Your task to perform on an android device: open wifi settings Image 0: 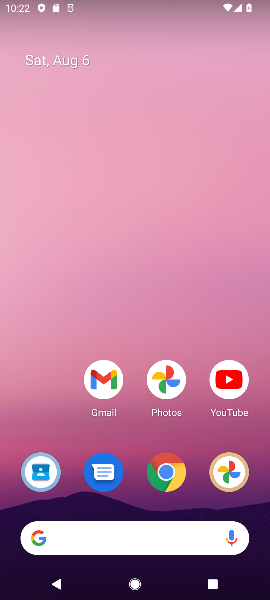
Step 0: drag from (114, 532) to (108, 265)
Your task to perform on an android device: open wifi settings Image 1: 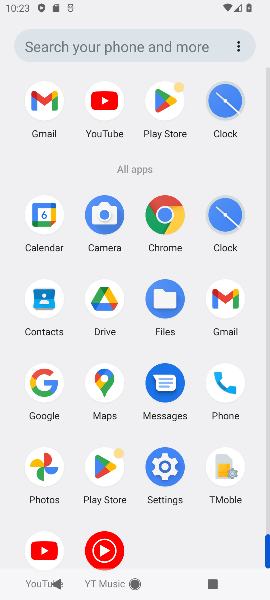
Step 1: click (174, 472)
Your task to perform on an android device: open wifi settings Image 2: 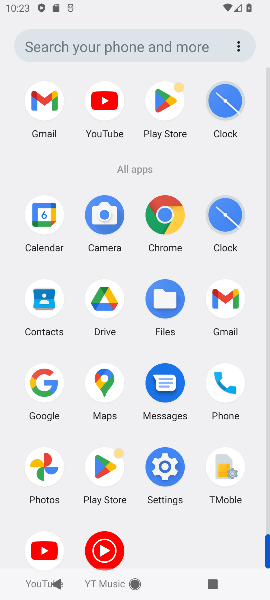
Step 2: click (168, 476)
Your task to perform on an android device: open wifi settings Image 3: 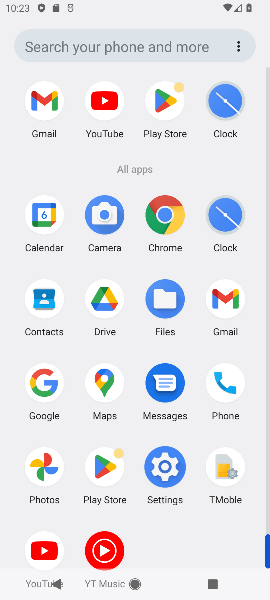
Step 3: click (168, 476)
Your task to perform on an android device: open wifi settings Image 4: 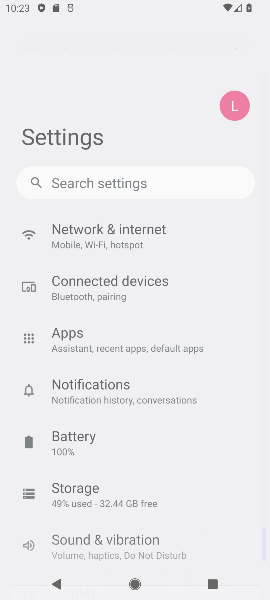
Step 4: click (168, 477)
Your task to perform on an android device: open wifi settings Image 5: 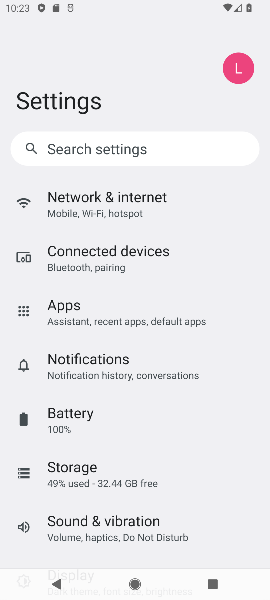
Step 5: click (168, 477)
Your task to perform on an android device: open wifi settings Image 6: 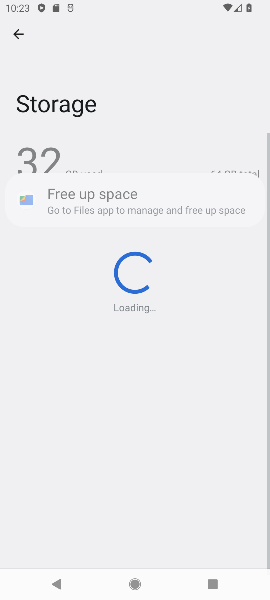
Step 6: click (189, 426)
Your task to perform on an android device: open wifi settings Image 7: 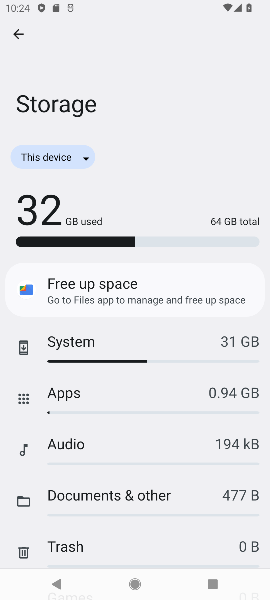
Step 7: click (15, 46)
Your task to perform on an android device: open wifi settings Image 8: 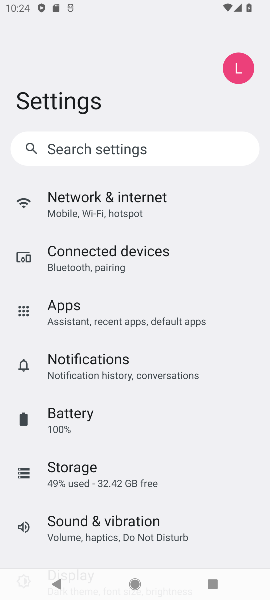
Step 8: click (108, 210)
Your task to perform on an android device: open wifi settings Image 9: 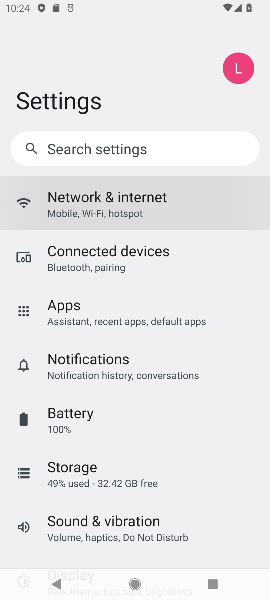
Step 9: click (111, 219)
Your task to perform on an android device: open wifi settings Image 10: 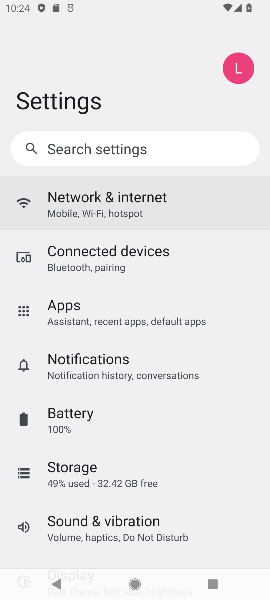
Step 10: click (106, 219)
Your task to perform on an android device: open wifi settings Image 11: 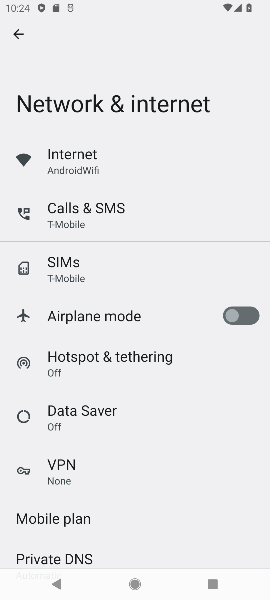
Step 11: click (219, 113)
Your task to perform on an android device: open wifi settings Image 12: 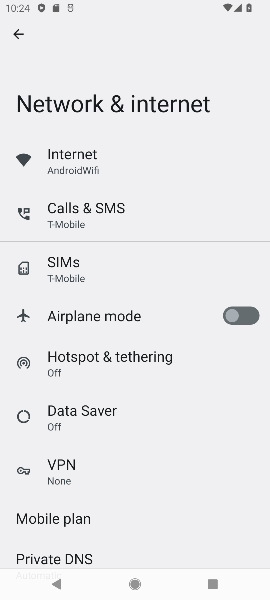
Step 12: click (72, 167)
Your task to perform on an android device: open wifi settings Image 13: 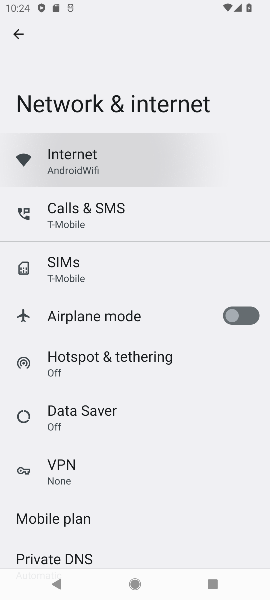
Step 13: click (73, 163)
Your task to perform on an android device: open wifi settings Image 14: 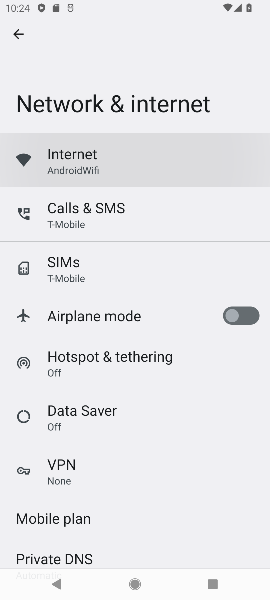
Step 14: click (73, 163)
Your task to perform on an android device: open wifi settings Image 15: 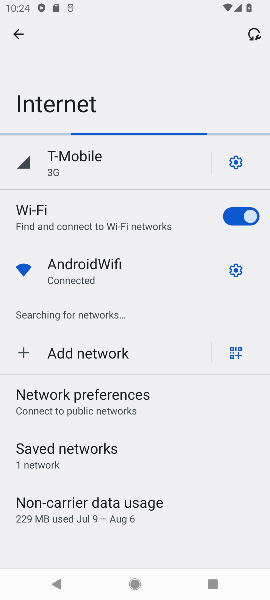
Step 15: task complete